Your task to perform on an android device: Open privacy settings Image 0: 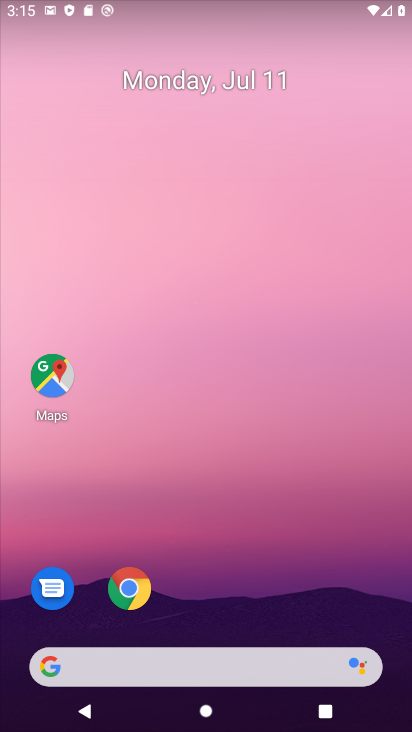
Step 0: drag from (307, 606) to (312, 3)
Your task to perform on an android device: Open privacy settings Image 1: 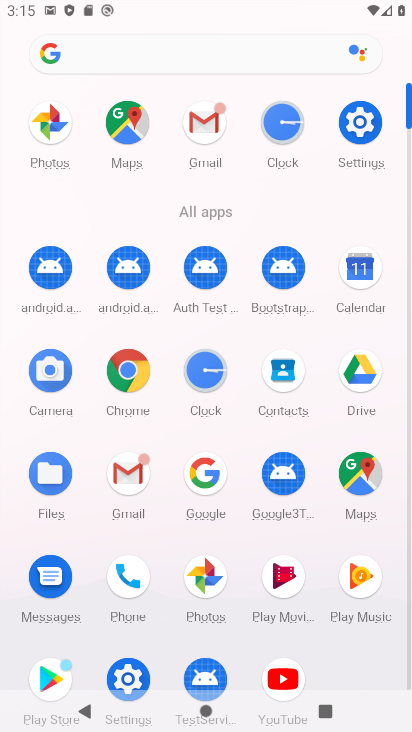
Step 1: click (370, 133)
Your task to perform on an android device: Open privacy settings Image 2: 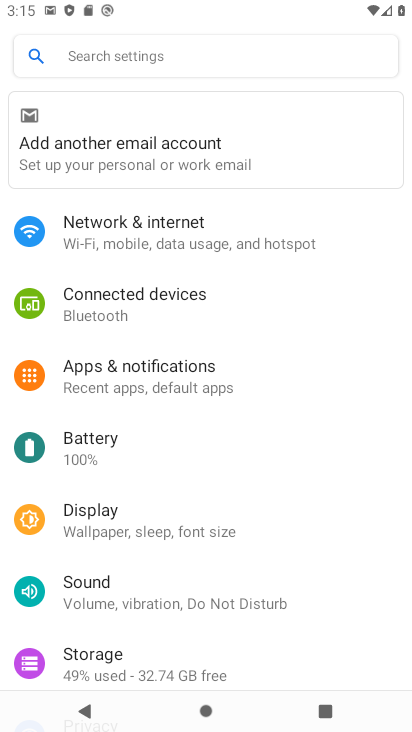
Step 2: drag from (275, 607) to (126, 230)
Your task to perform on an android device: Open privacy settings Image 3: 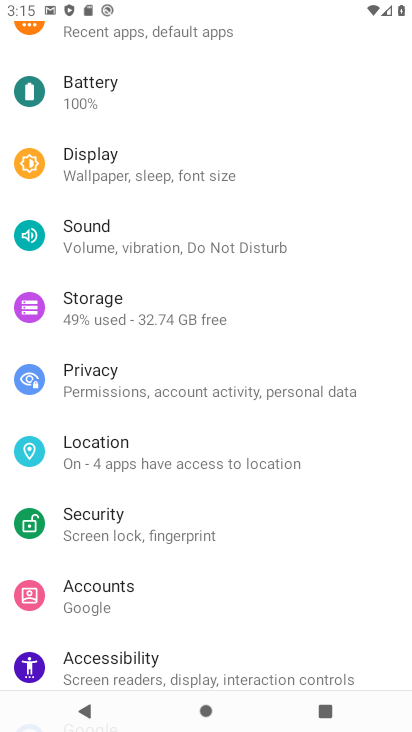
Step 3: drag from (184, 602) to (55, 94)
Your task to perform on an android device: Open privacy settings Image 4: 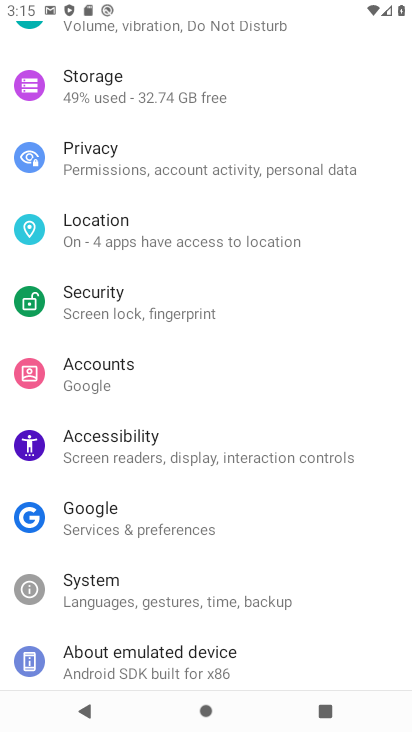
Step 4: click (105, 150)
Your task to perform on an android device: Open privacy settings Image 5: 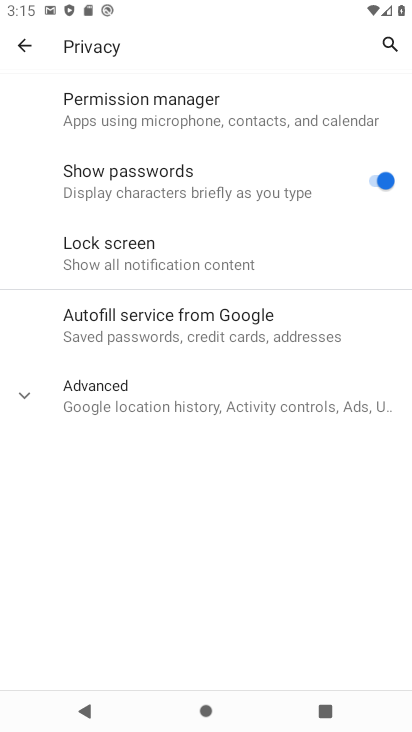
Step 5: task complete